Your task to perform on an android device: Empty the shopping cart on newegg.com. Search for razer nari on newegg.com, select the first entry, add it to the cart, then select checkout. Image 0: 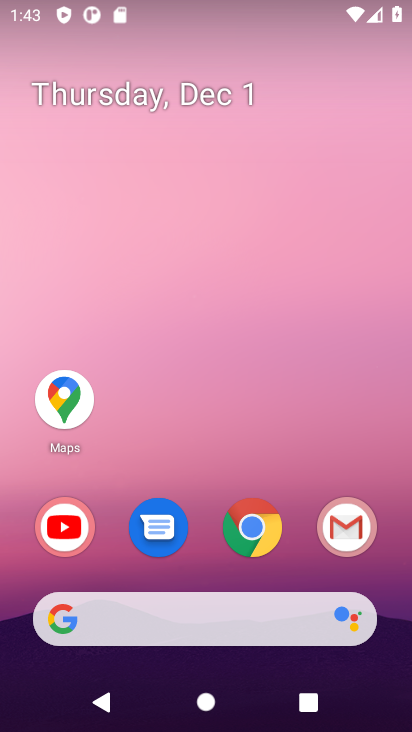
Step 0: click (250, 529)
Your task to perform on an android device: Empty the shopping cart on newegg.com. Search for razer nari on newegg.com, select the first entry, add it to the cart, then select checkout. Image 1: 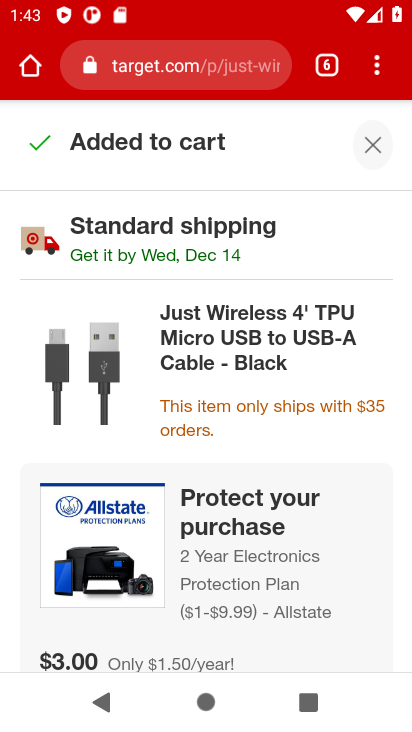
Step 1: click (154, 69)
Your task to perform on an android device: Empty the shopping cart on newegg.com. Search for razer nari on newegg.com, select the first entry, add it to the cart, then select checkout. Image 2: 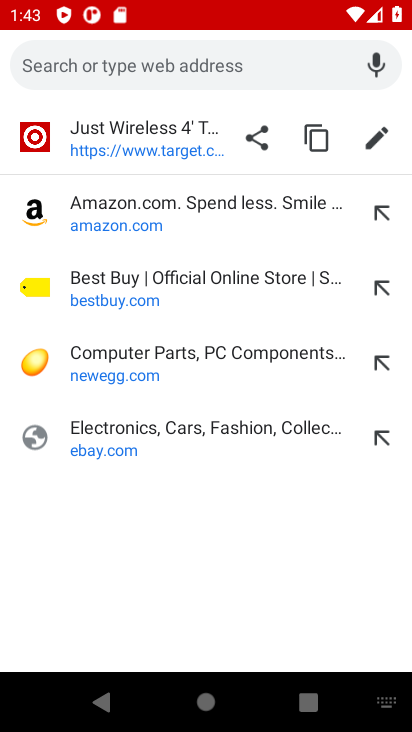
Step 2: click (118, 377)
Your task to perform on an android device: Empty the shopping cart on newegg.com. Search for razer nari on newegg.com, select the first entry, add it to the cart, then select checkout. Image 3: 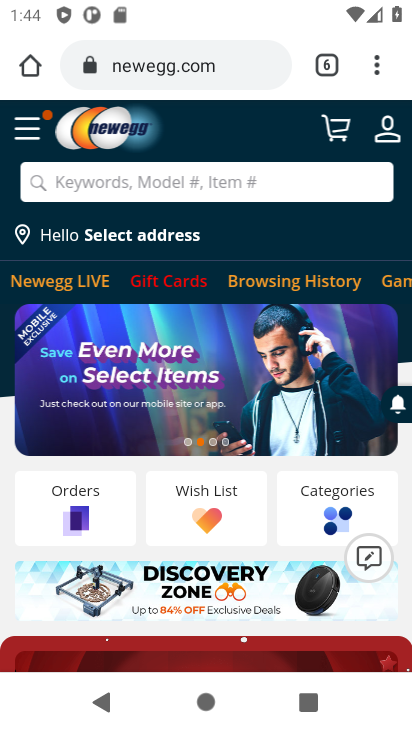
Step 3: click (335, 131)
Your task to perform on an android device: Empty the shopping cart on newegg.com. Search for razer nari on newegg.com, select the first entry, add it to the cart, then select checkout. Image 4: 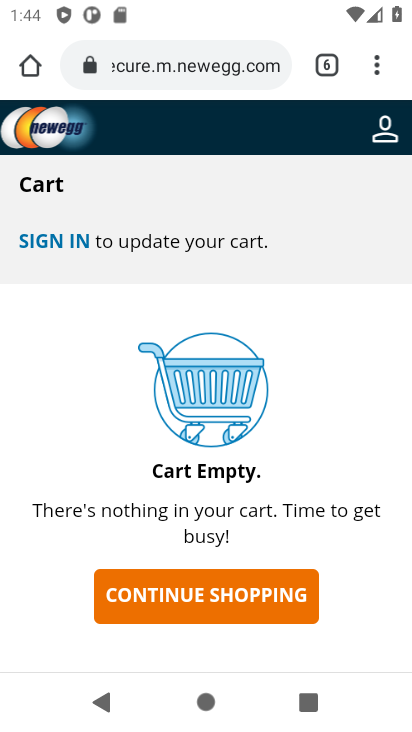
Step 4: click (208, 591)
Your task to perform on an android device: Empty the shopping cart on newegg.com. Search for razer nari on newegg.com, select the first entry, add it to the cart, then select checkout. Image 5: 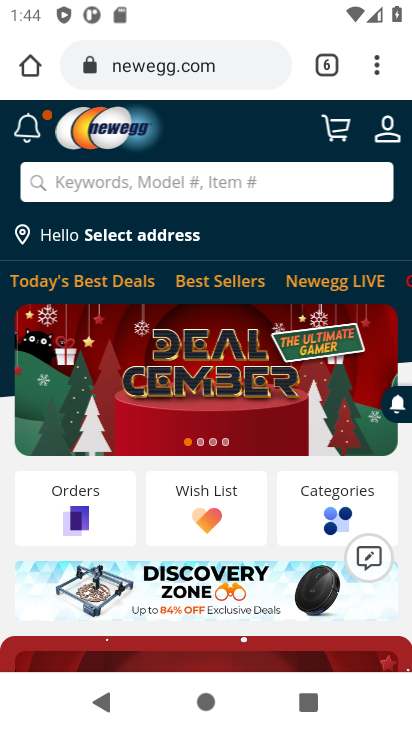
Step 5: click (70, 191)
Your task to perform on an android device: Empty the shopping cart on newegg.com. Search for razer nari on newegg.com, select the first entry, add it to the cart, then select checkout. Image 6: 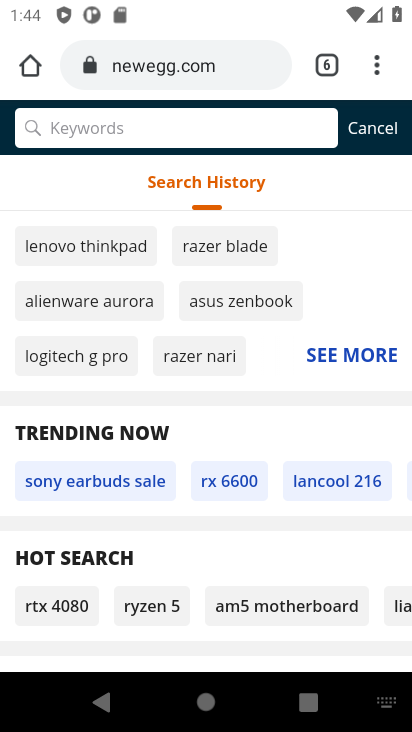
Step 6: type "razer nari"
Your task to perform on an android device: Empty the shopping cart on newegg.com. Search for razer nari on newegg.com, select the first entry, add it to the cart, then select checkout. Image 7: 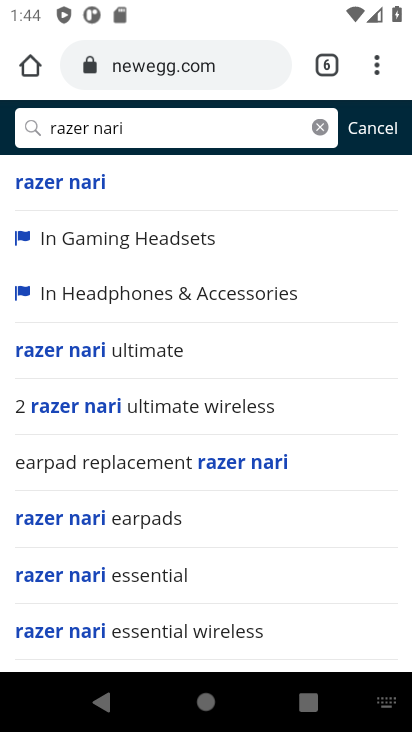
Step 7: click (59, 195)
Your task to perform on an android device: Empty the shopping cart on newegg.com. Search for razer nari on newegg.com, select the first entry, add it to the cart, then select checkout. Image 8: 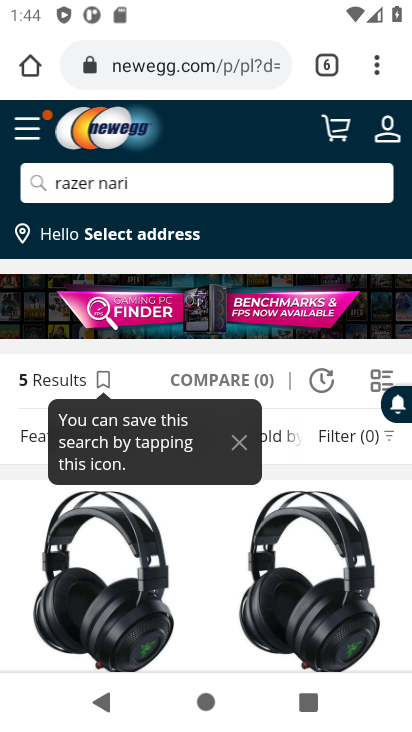
Step 8: drag from (186, 627) to (152, 340)
Your task to perform on an android device: Empty the shopping cart on newegg.com. Search for razer nari on newegg.com, select the first entry, add it to the cart, then select checkout. Image 9: 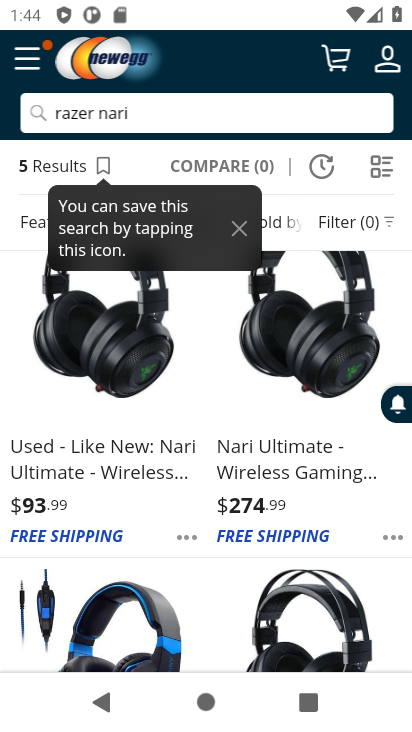
Step 9: click (123, 353)
Your task to perform on an android device: Empty the shopping cart on newegg.com. Search for razer nari on newegg.com, select the first entry, add it to the cart, then select checkout. Image 10: 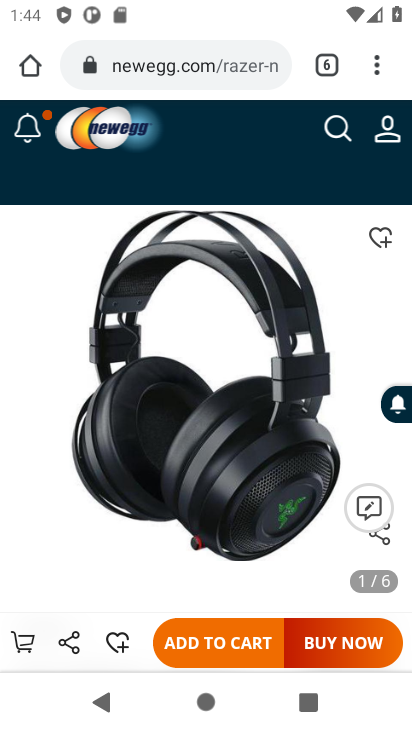
Step 10: click (205, 649)
Your task to perform on an android device: Empty the shopping cart on newegg.com. Search for razer nari on newegg.com, select the first entry, add it to the cart, then select checkout. Image 11: 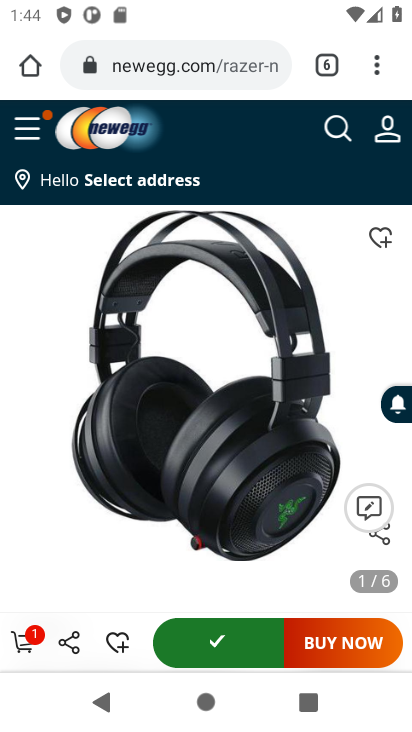
Step 11: click (30, 633)
Your task to perform on an android device: Empty the shopping cart on newegg.com. Search for razer nari on newegg.com, select the first entry, add it to the cart, then select checkout. Image 12: 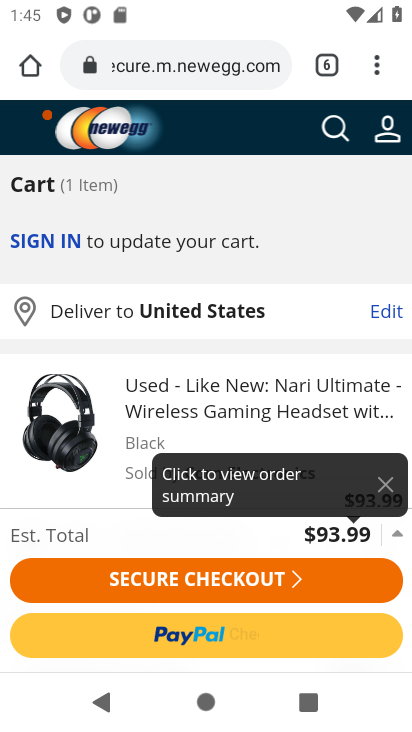
Step 12: click (155, 578)
Your task to perform on an android device: Empty the shopping cart on newegg.com. Search for razer nari on newegg.com, select the first entry, add it to the cart, then select checkout. Image 13: 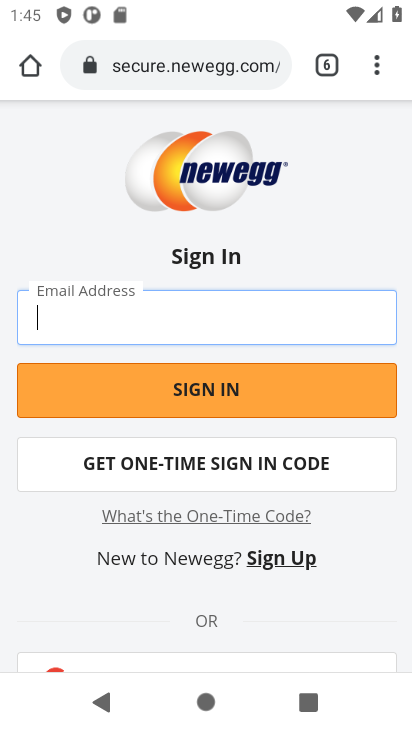
Step 13: task complete